Your task to perform on an android device: Search for 3d printer on AliExpress Image 0: 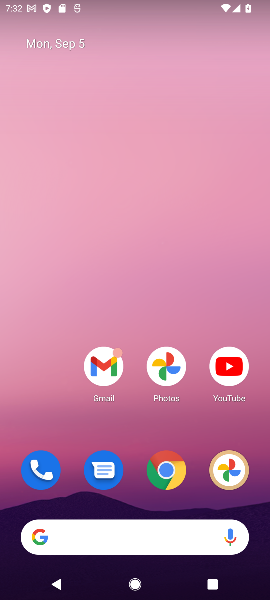
Step 0: drag from (132, 518) to (139, 39)
Your task to perform on an android device: Search for 3d printer on AliExpress Image 1: 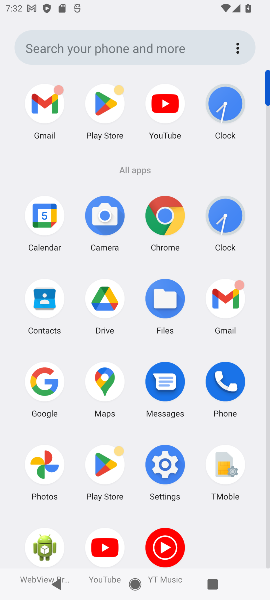
Step 1: click (158, 213)
Your task to perform on an android device: Search for 3d printer on AliExpress Image 2: 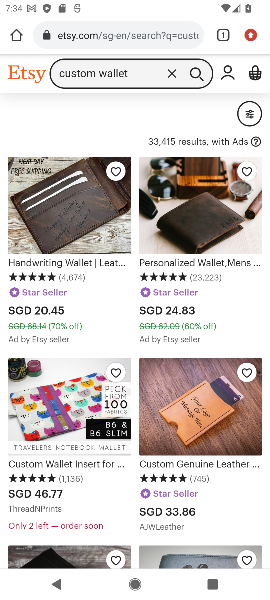
Step 2: press home button
Your task to perform on an android device: Search for 3d printer on AliExpress Image 3: 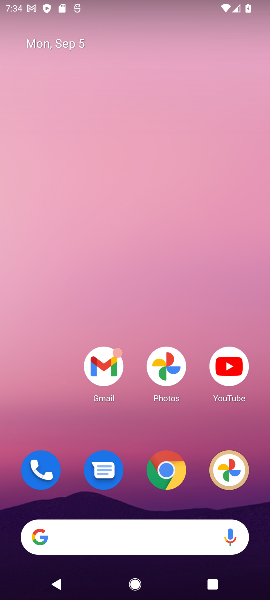
Step 3: drag from (135, 394) to (13, 62)
Your task to perform on an android device: Search for 3d printer on AliExpress Image 4: 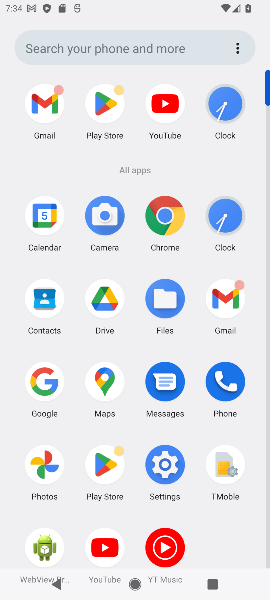
Step 4: click (157, 220)
Your task to perform on an android device: Search for 3d printer on AliExpress Image 5: 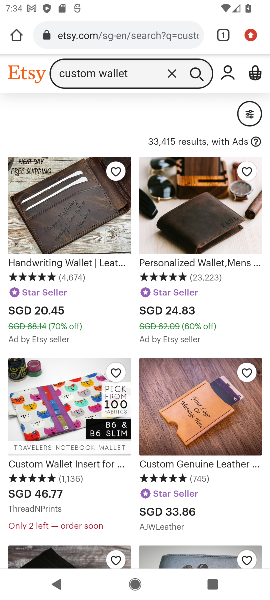
Step 5: click (116, 44)
Your task to perform on an android device: Search for 3d printer on AliExpress Image 6: 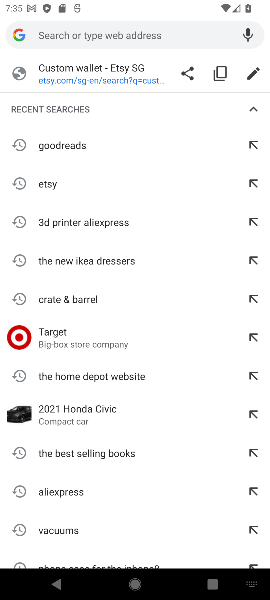
Step 6: type " AliExpress"
Your task to perform on an android device: Search for 3d printer on AliExpress Image 7: 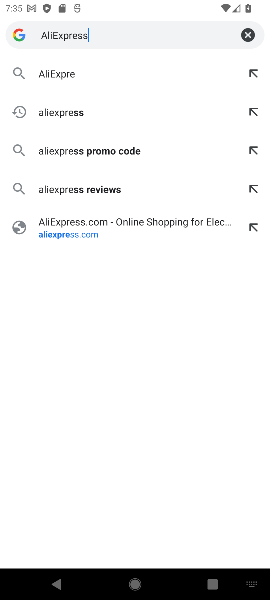
Step 7: type ""
Your task to perform on an android device: Search for 3d printer on AliExpress Image 8: 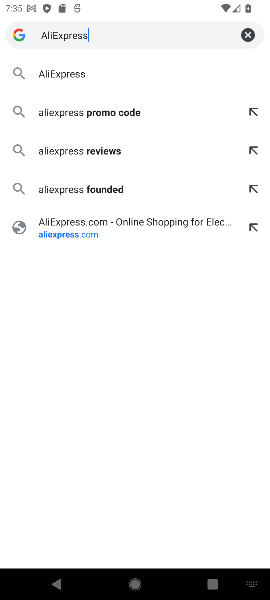
Step 8: click (91, 66)
Your task to perform on an android device: Search for 3d printer on AliExpress Image 9: 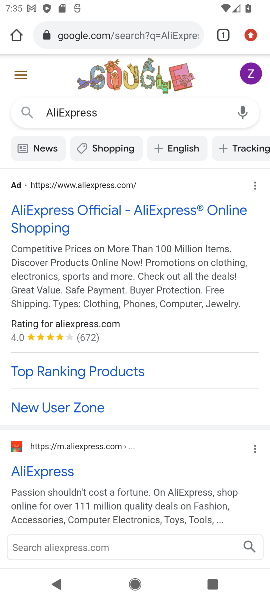
Step 9: click (125, 222)
Your task to perform on an android device: Search for 3d printer on AliExpress Image 10: 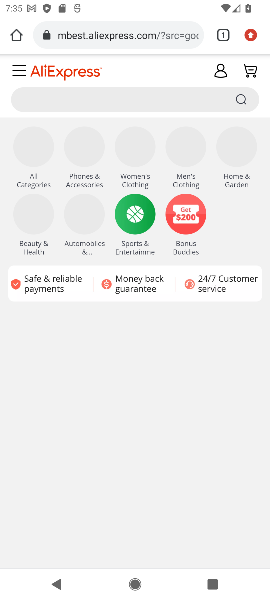
Step 10: click (78, 103)
Your task to perform on an android device: Search for 3d printer on AliExpress Image 11: 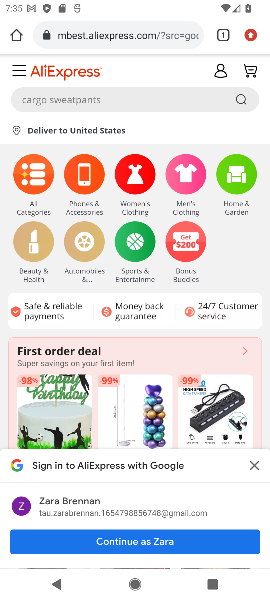
Step 11: click (74, 101)
Your task to perform on an android device: Search for 3d printer on AliExpress Image 12: 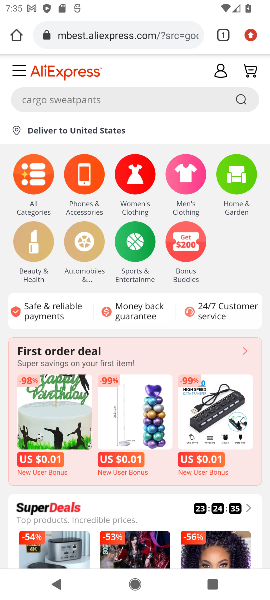
Step 12: type "3d printer"
Your task to perform on an android device: Search for 3d printer on AliExpress Image 13: 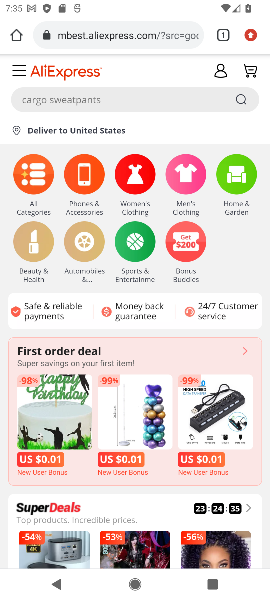
Step 13: click (69, 100)
Your task to perform on an android device: Search for 3d printer on AliExpress Image 14: 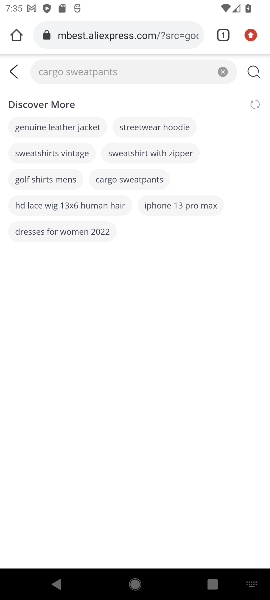
Step 14: type "3d printer"
Your task to perform on an android device: Search for 3d printer on AliExpress Image 15: 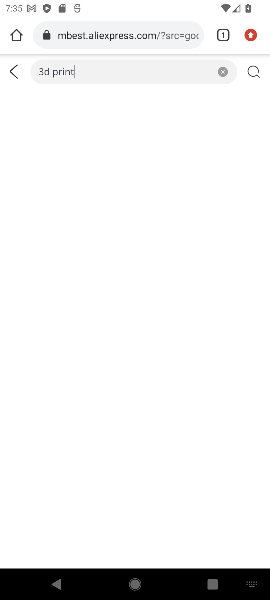
Step 15: type ""
Your task to perform on an android device: Search for 3d printer on AliExpress Image 16: 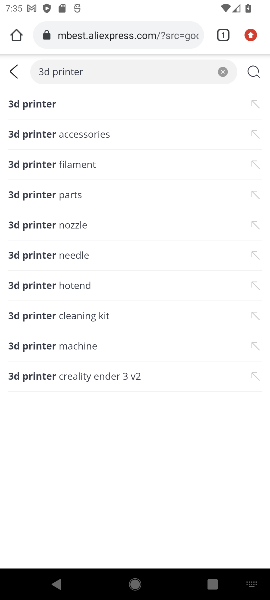
Step 16: click (42, 99)
Your task to perform on an android device: Search for 3d printer on AliExpress Image 17: 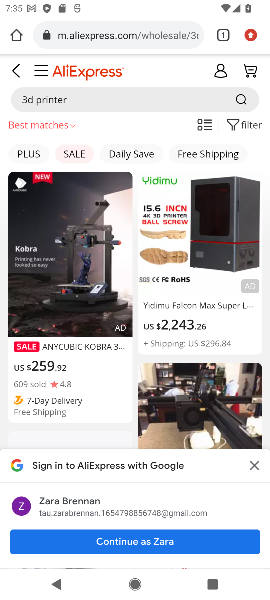
Step 17: task complete